Your task to perform on an android device: open app "Contacts" (install if not already installed) Image 0: 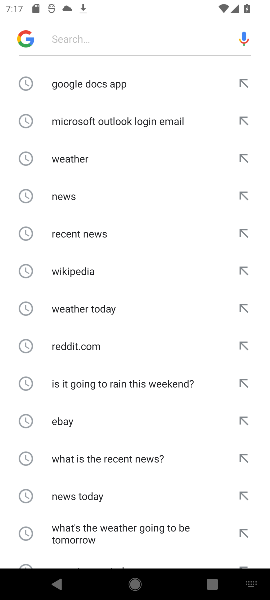
Step 0: press home button
Your task to perform on an android device: open app "Contacts" (install if not already installed) Image 1: 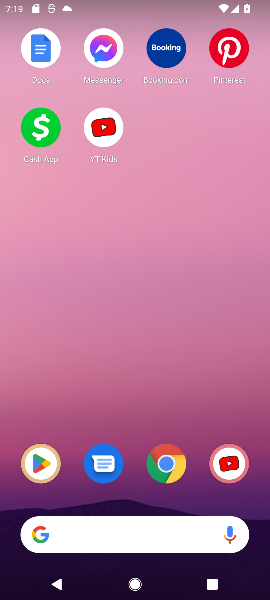
Step 1: click (45, 461)
Your task to perform on an android device: open app "Contacts" (install if not already installed) Image 2: 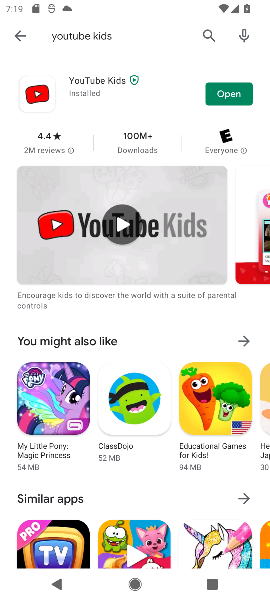
Step 2: click (201, 42)
Your task to perform on an android device: open app "Contacts" (install if not already installed) Image 3: 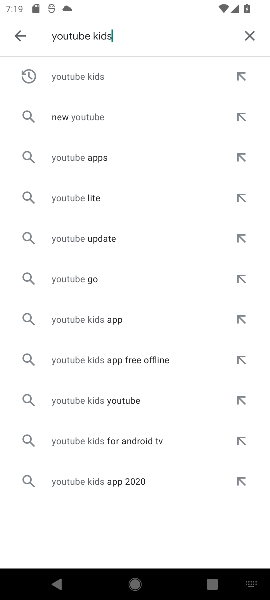
Step 3: click (249, 38)
Your task to perform on an android device: open app "Contacts" (install if not already installed) Image 4: 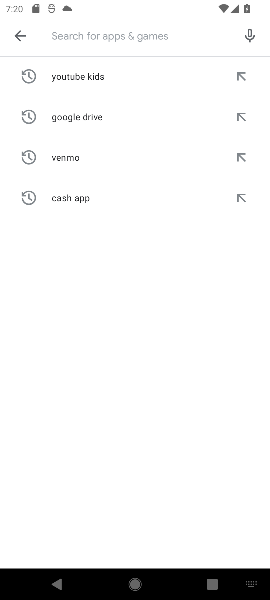
Step 4: type "contact"
Your task to perform on an android device: open app "Contacts" (install if not already installed) Image 5: 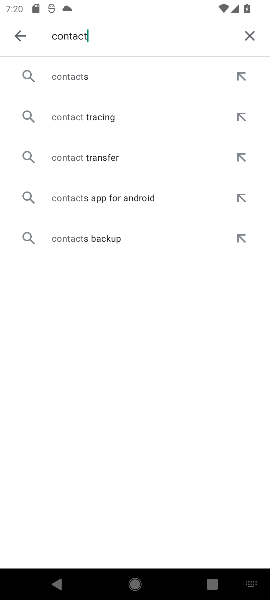
Step 5: task complete